Your task to perform on an android device: How much does a 3 bedroom apartment rent for in Atlanta? Image 0: 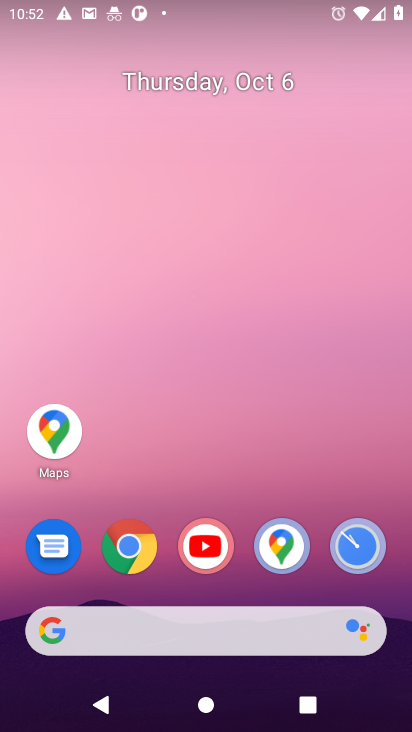
Step 0: click (128, 540)
Your task to perform on an android device: How much does a 3 bedroom apartment rent for in Atlanta? Image 1: 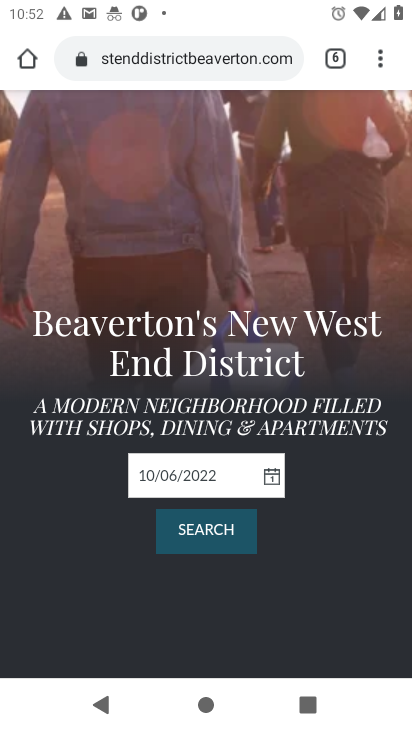
Step 1: click (174, 37)
Your task to perform on an android device: How much does a 3 bedroom apartment rent for in Atlanta? Image 2: 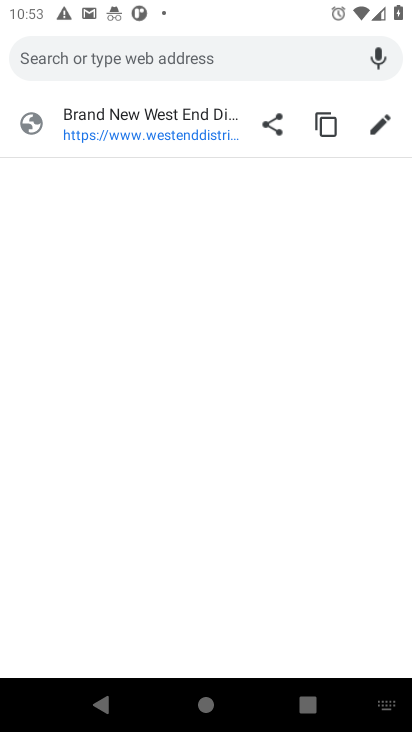
Step 2: type "How much does a 3 bedroom apartment rent for in Atlanta?"
Your task to perform on an android device: How much does a 3 bedroom apartment rent for in Atlanta? Image 3: 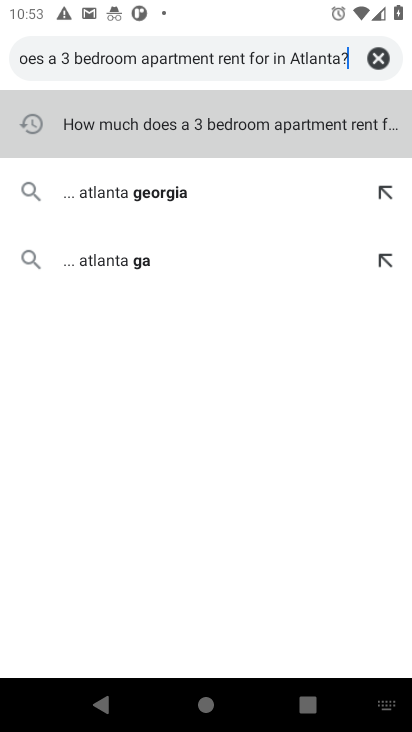
Step 3: click (125, 113)
Your task to perform on an android device: How much does a 3 bedroom apartment rent for in Atlanta? Image 4: 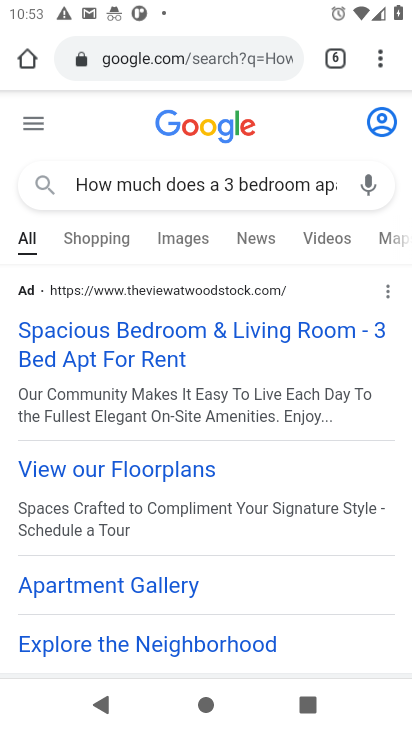
Step 4: click (120, 334)
Your task to perform on an android device: How much does a 3 bedroom apartment rent for in Atlanta? Image 5: 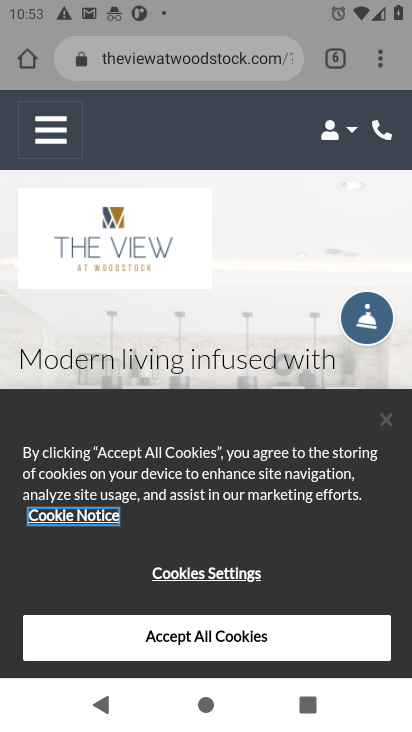
Step 5: click (202, 639)
Your task to perform on an android device: How much does a 3 bedroom apartment rent for in Atlanta? Image 6: 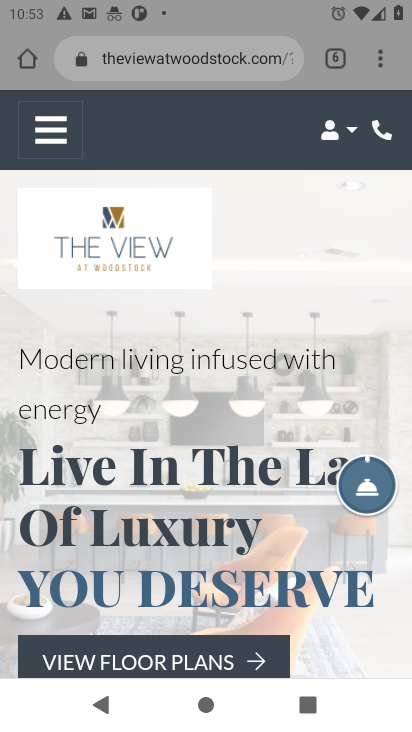
Step 6: click (230, 298)
Your task to perform on an android device: How much does a 3 bedroom apartment rent for in Atlanta? Image 7: 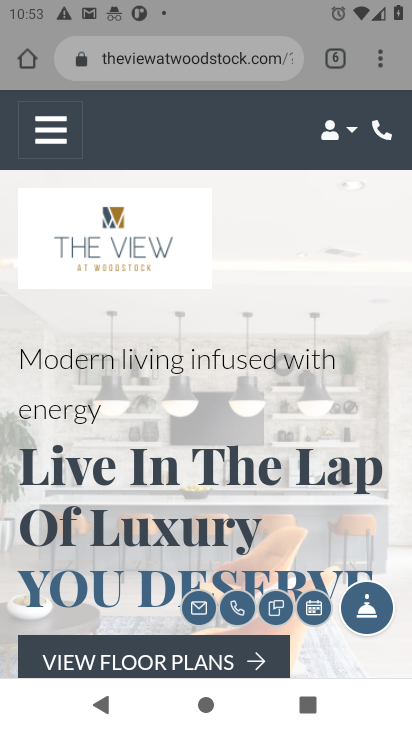
Step 7: drag from (139, 570) to (182, 92)
Your task to perform on an android device: How much does a 3 bedroom apartment rent for in Atlanta? Image 8: 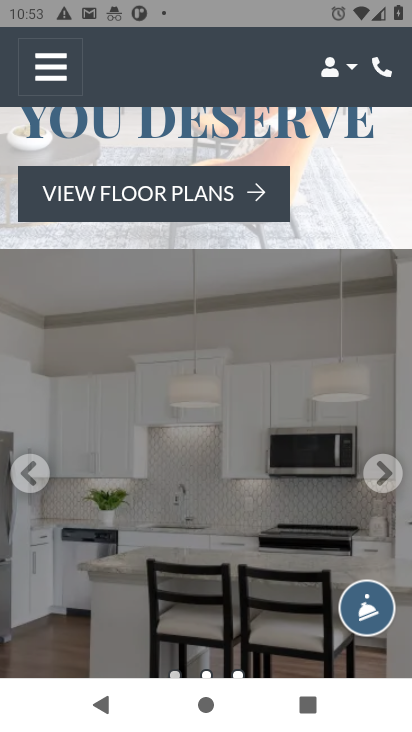
Step 8: drag from (201, 440) to (197, 167)
Your task to perform on an android device: How much does a 3 bedroom apartment rent for in Atlanta? Image 9: 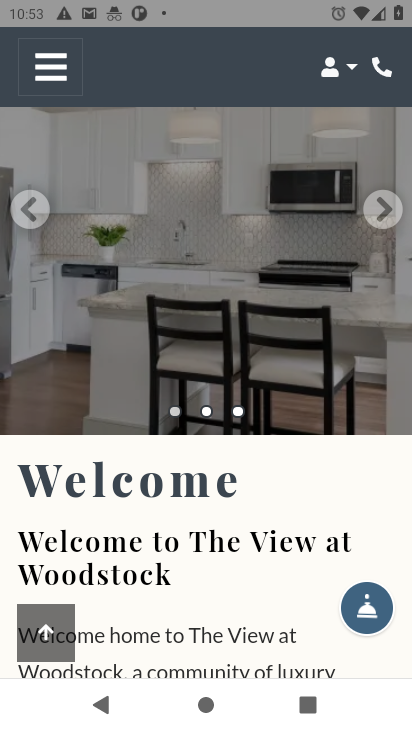
Step 9: drag from (219, 541) to (235, 157)
Your task to perform on an android device: How much does a 3 bedroom apartment rent for in Atlanta? Image 10: 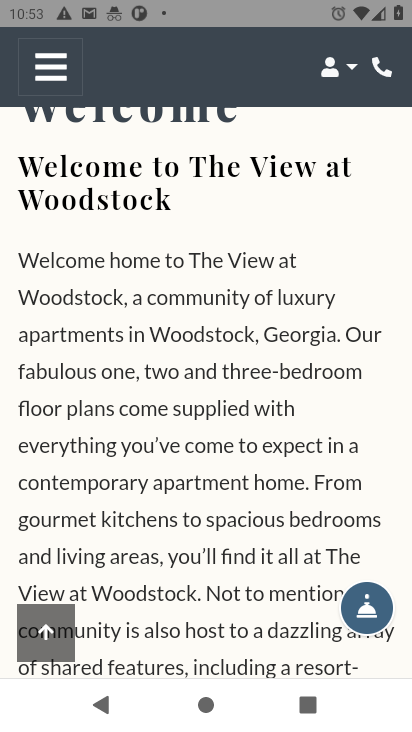
Step 10: press back button
Your task to perform on an android device: How much does a 3 bedroom apartment rent for in Atlanta? Image 11: 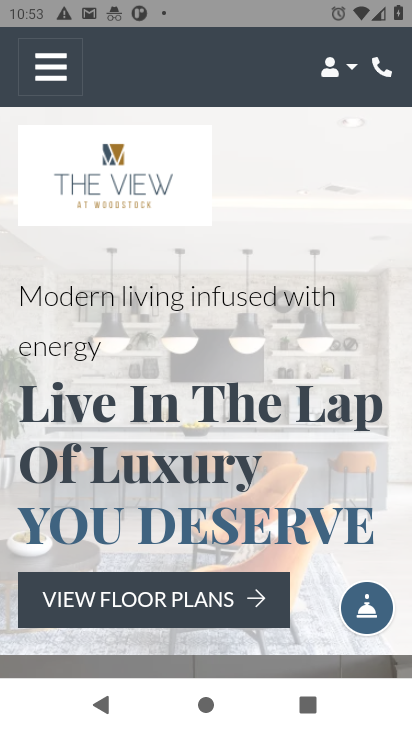
Step 11: press back button
Your task to perform on an android device: How much does a 3 bedroom apartment rent for in Atlanta? Image 12: 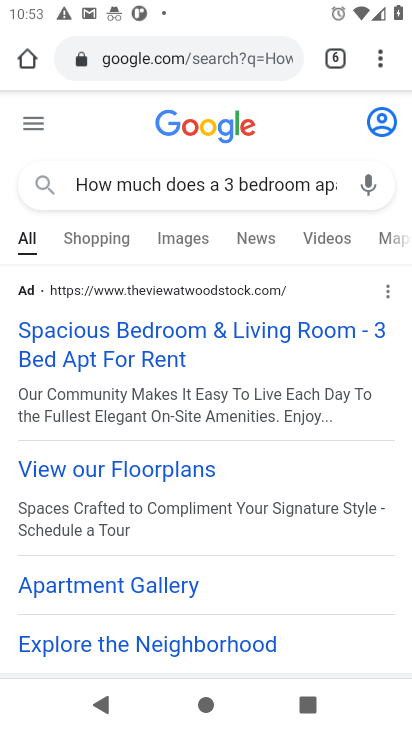
Step 12: drag from (338, 582) to (323, 232)
Your task to perform on an android device: How much does a 3 bedroom apartment rent for in Atlanta? Image 13: 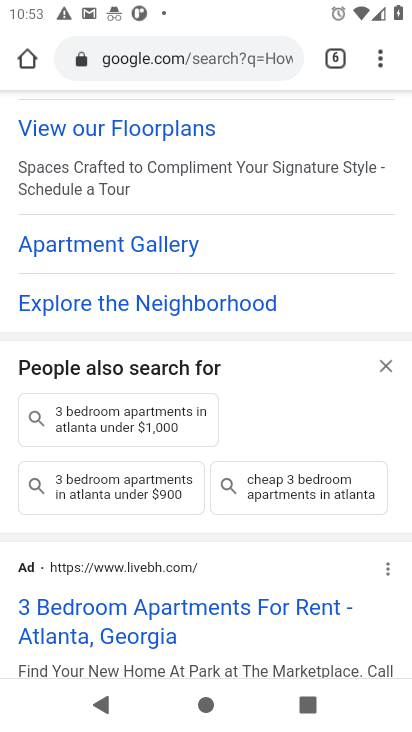
Step 13: drag from (257, 600) to (237, 251)
Your task to perform on an android device: How much does a 3 bedroom apartment rent for in Atlanta? Image 14: 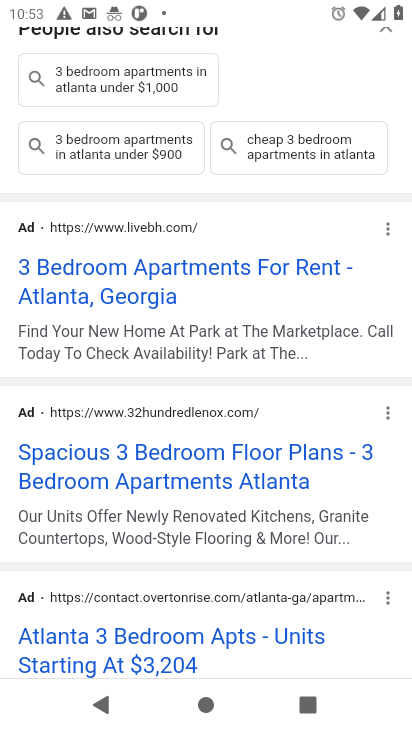
Step 14: click (94, 273)
Your task to perform on an android device: How much does a 3 bedroom apartment rent for in Atlanta? Image 15: 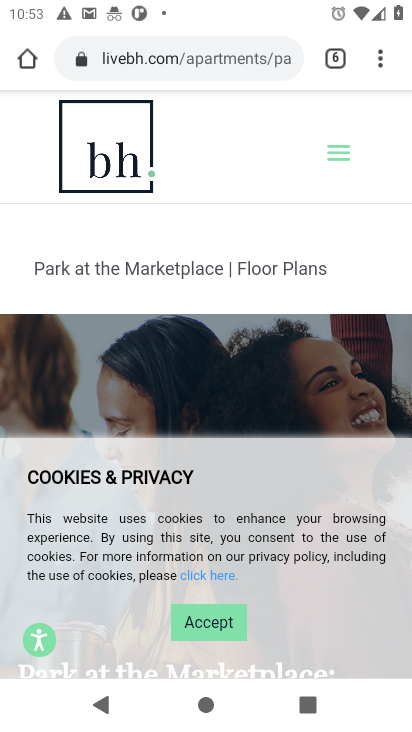
Step 15: click (209, 624)
Your task to perform on an android device: How much does a 3 bedroom apartment rent for in Atlanta? Image 16: 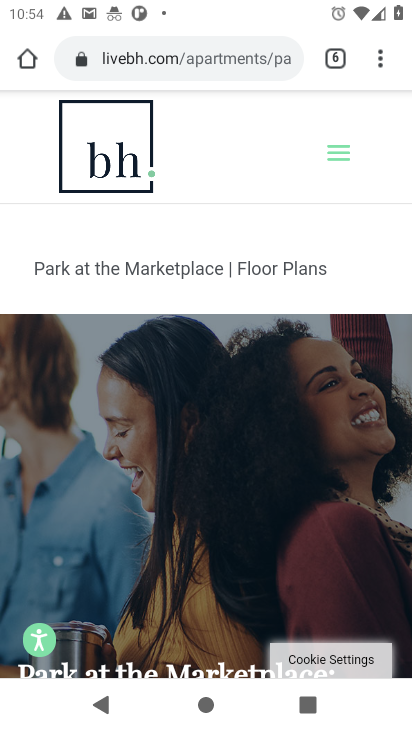
Step 16: task complete